Your task to perform on an android device: turn on data saver in the chrome app Image 0: 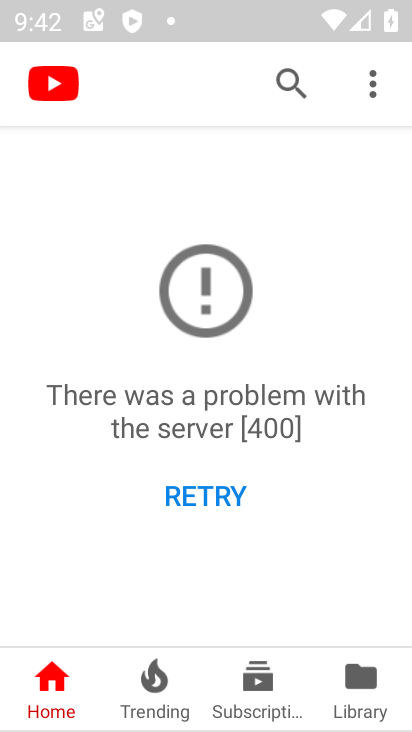
Step 0: press home button
Your task to perform on an android device: turn on data saver in the chrome app Image 1: 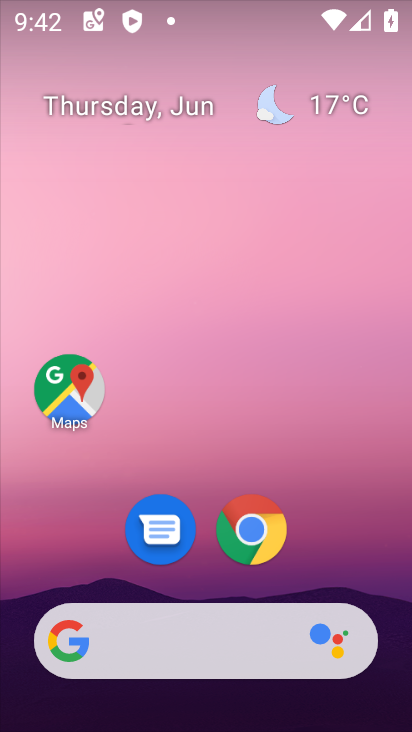
Step 1: click (258, 533)
Your task to perform on an android device: turn on data saver in the chrome app Image 2: 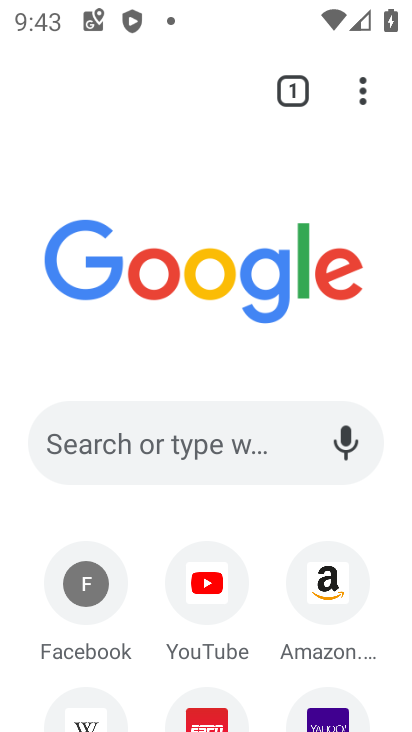
Step 2: click (361, 91)
Your task to perform on an android device: turn on data saver in the chrome app Image 3: 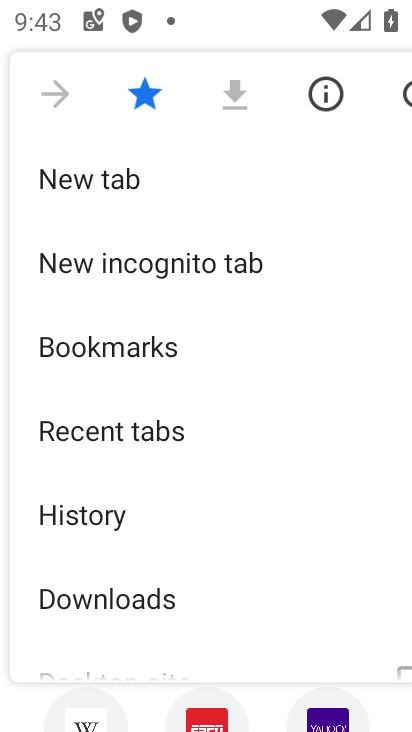
Step 3: drag from (296, 512) to (243, 204)
Your task to perform on an android device: turn on data saver in the chrome app Image 4: 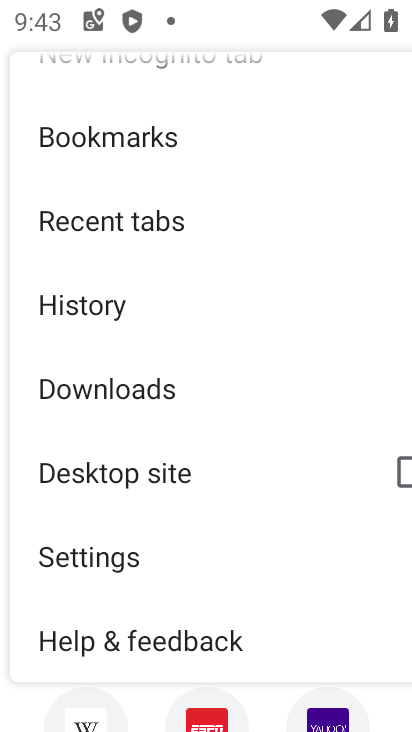
Step 4: click (108, 573)
Your task to perform on an android device: turn on data saver in the chrome app Image 5: 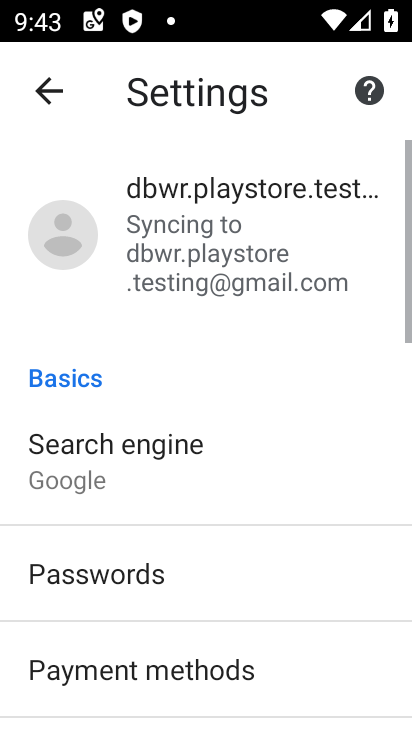
Step 5: drag from (289, 642) to (235, 115)
Your task to perform on an android device: turn on data saver in the chrome app Image 6: 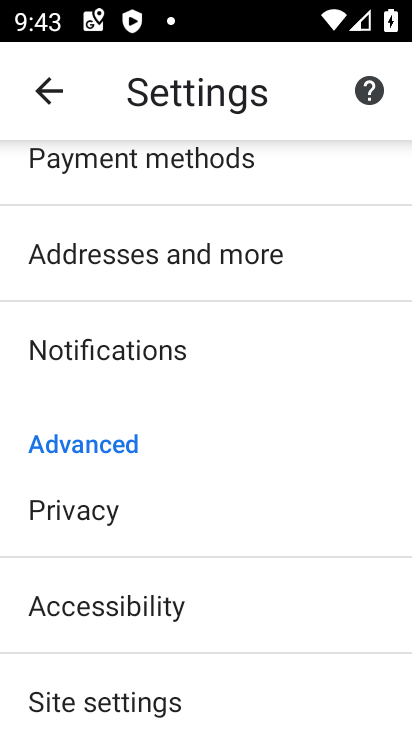
Step 6: drag from (242, 660) to (248, 382)
Your task to perform on an android device: turn on data saver in the chrome app Image 7: 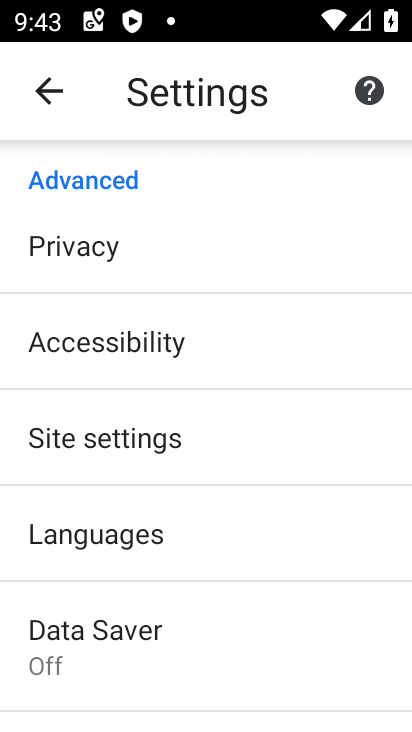
Step 7: click (80, 637)
Your task to perform on an android device: turn on data saver in the chrome app Image 8: 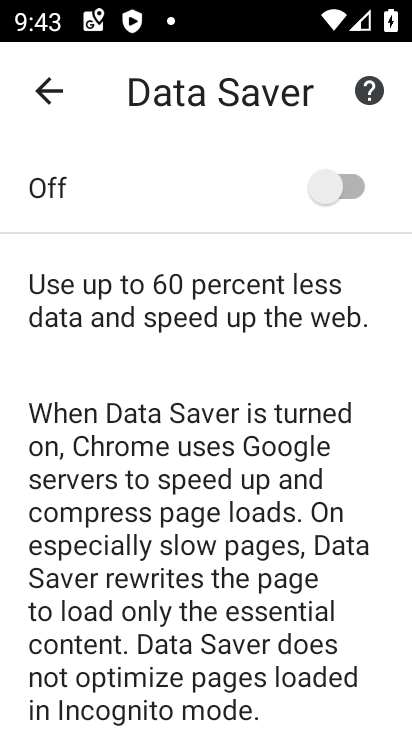
Step 8: click (349, 192)
Your task to perform on an android device: turn on data saver in the chrome app Image 9: 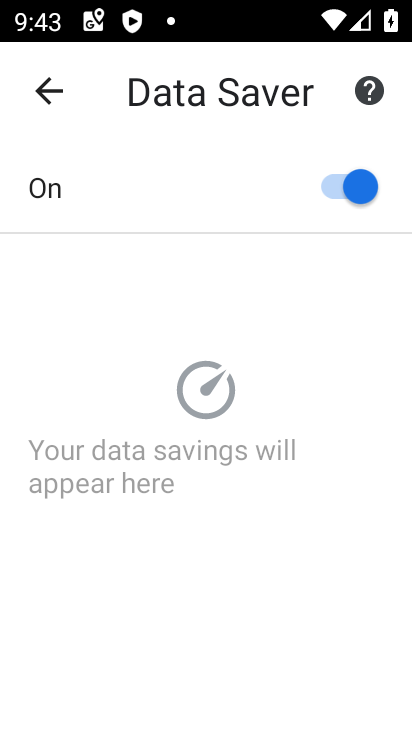
Step 9: task complete